Your task to perform on an android device: What's the weather going to be this weekend? Image 0: 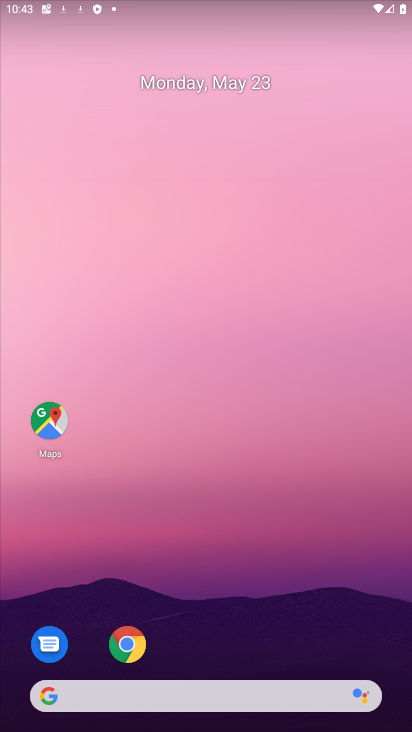
Step 0: drag from (284, 710) to (326, 119)
Your task to perform on an android device: What's the weather going to be this weekend? Image 1: 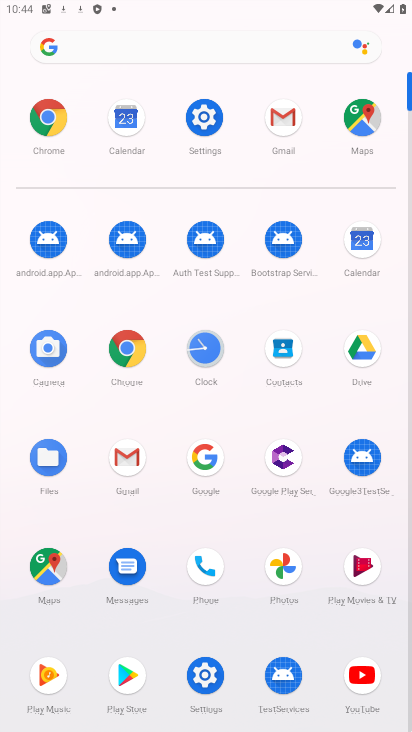
Step 1: click (366, 234)
Your task to perform on an android device: What's the weather going to be this weekend? Image 2: 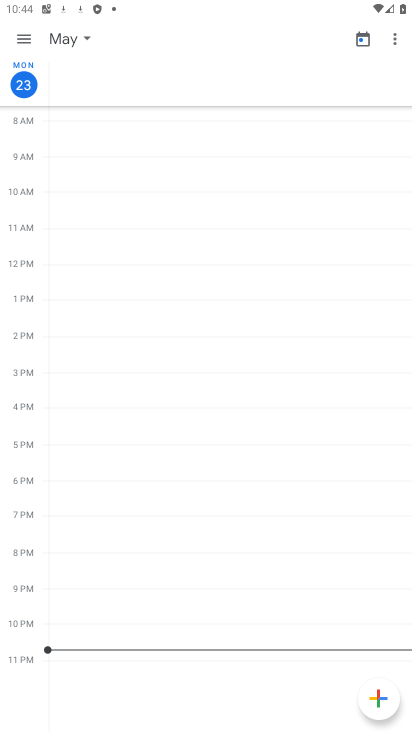
Step 2: click (31, 35)
Your task to perform on an android device: What's the weather going to be this weekend? Image 3: 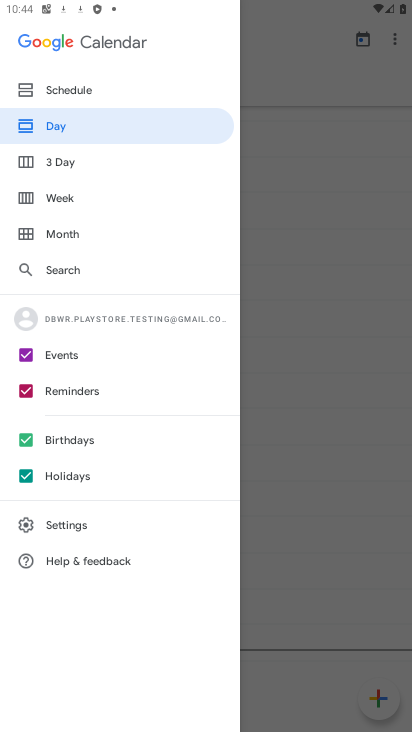
Step 3: press home button
Your task to perform on an android device: What's the weather going to be this weekend? Image 4: 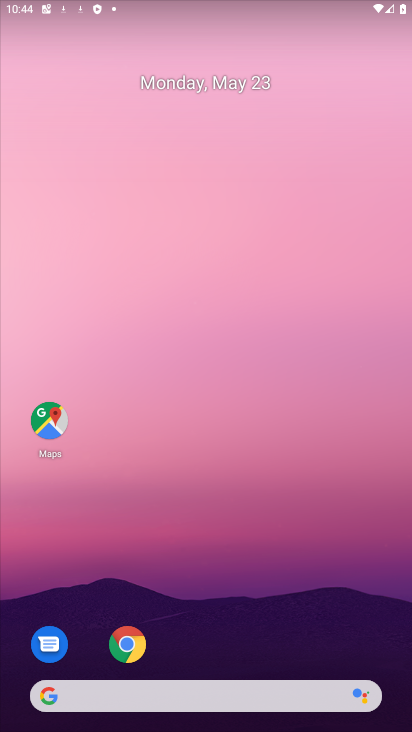
Step 4: drag from (277, 726) to (290, 139)
Your task to perform on an android device: What's the weather going to be this weekend? Image 5: 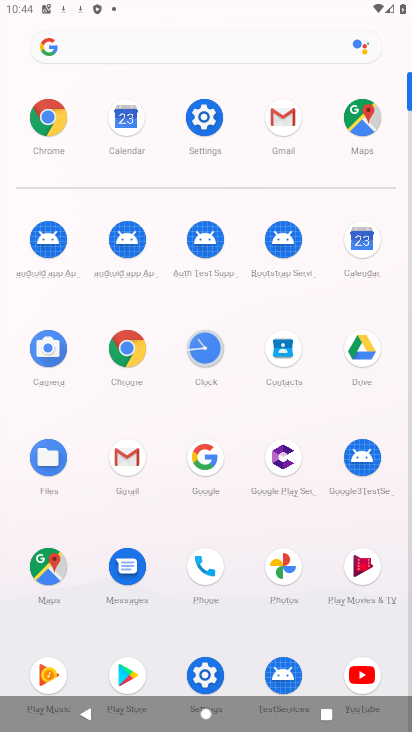
Step 5: click (142, 45)
Your task to perform on an android device: What's the weather going to be this weekend? Image 6: 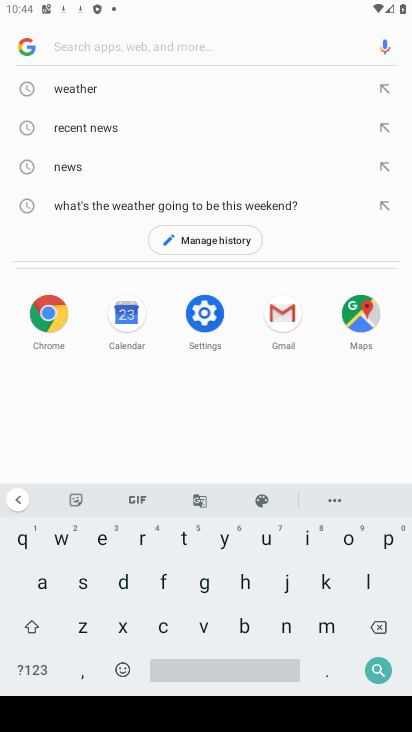
Step 6: click (103, 71)
Your task to perform on an android device: What's the weather going to be this weekend? Image 7: 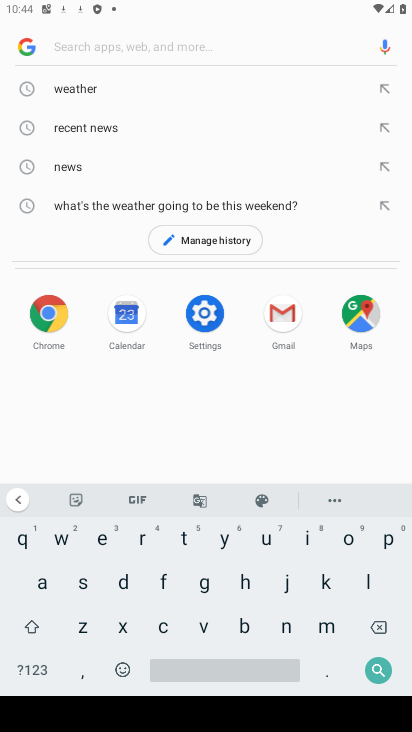
Step 7: click (102, 86)
Your task to perform on an android device: What's the weather going to be this weekend? Image 8: 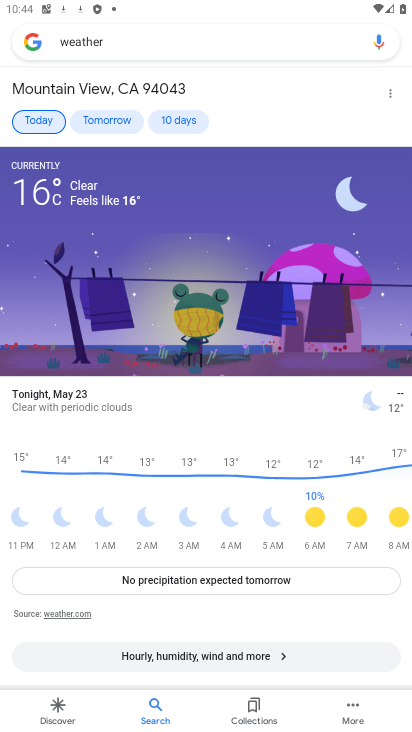
Step 8: click (168, 122)
Your task to perform on an android device: What's the weather going to be this weekend? Image 9: 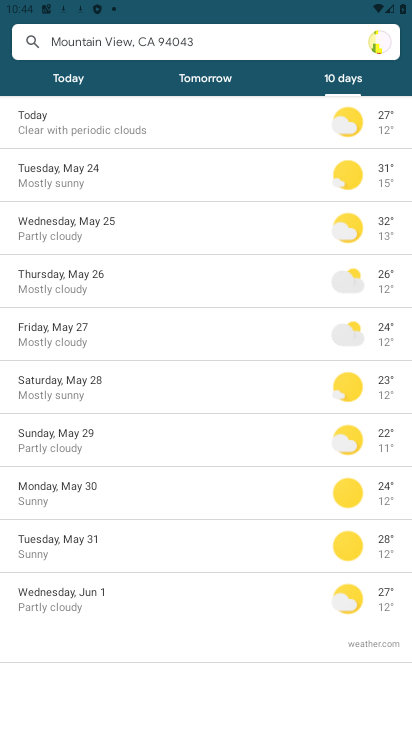
Step 9: task complete